Your task to perform on an android device: Go to accessibility settings Image 0: 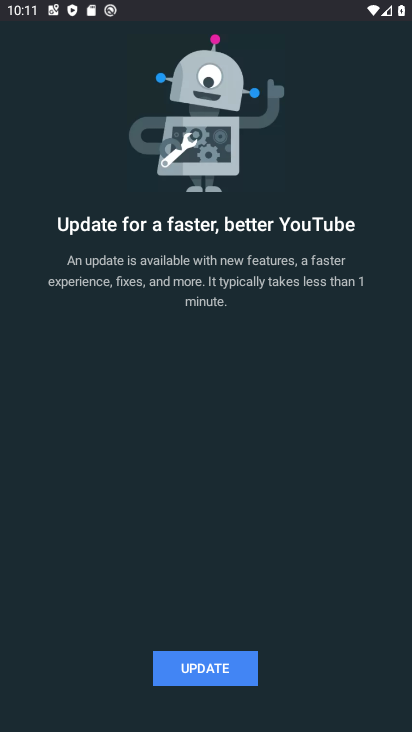
Step 0: press home button
Your task to perform on an android device: Go to accessibility settings Image 1: 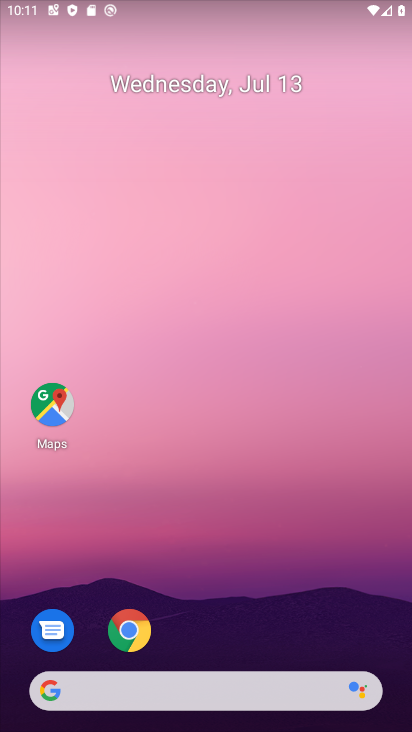
Step 1: drag from (343, 635) to (337, 182)
Your task to perform on an android device: Go to accessibility settings Image 2: 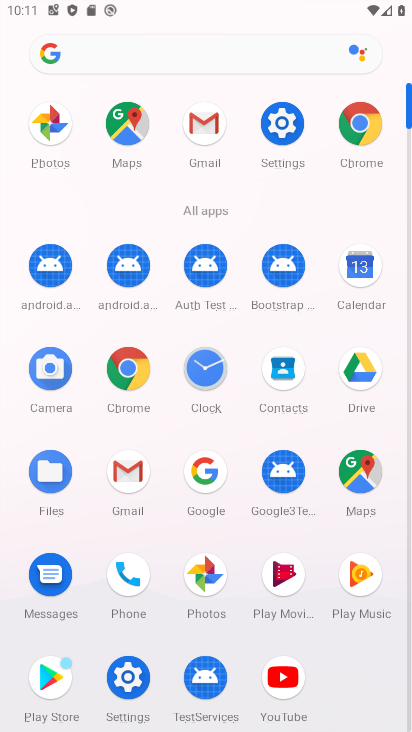
Step 2: click (283, 124)
Your task to perform on an android device: Go to accessibility settings Image 3: 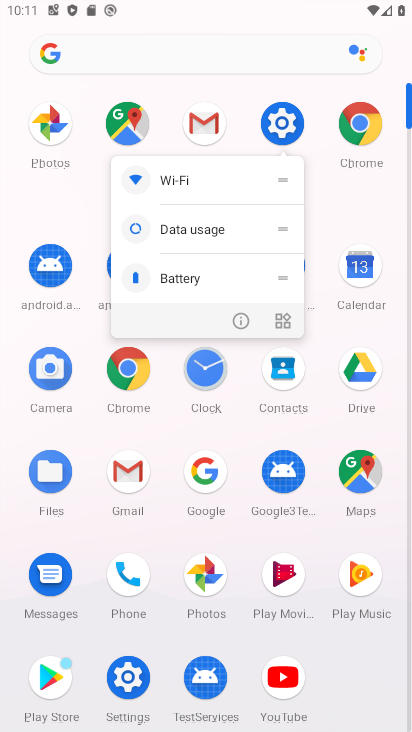
Step 3: click (277, 128)
Your task to perform on an android device: Go to accessibility settings Image 4: 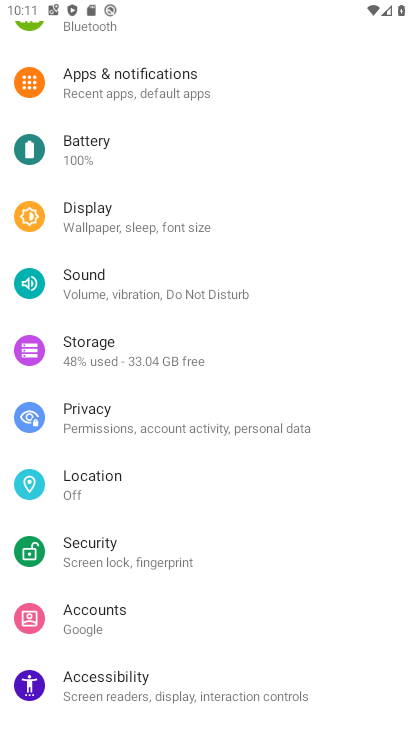
Step 4: drag from (170, 638) to (261, 326)
Your task to perform on an android device: Go to accessibility settings Image 5: 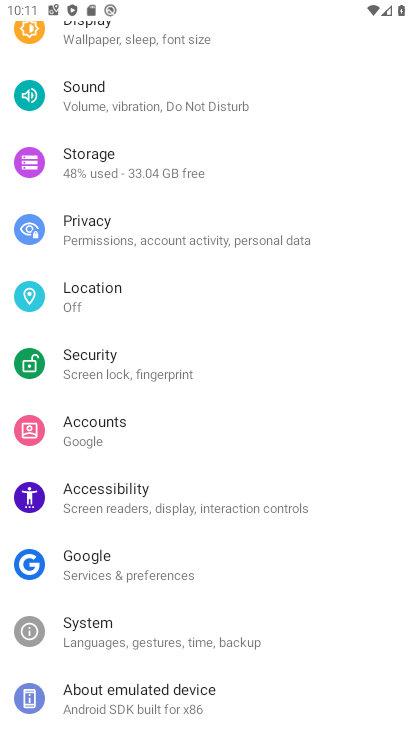
Step 5: click (120, 492)
Your task to perform on an android device: Go to accessibility settings Image 6: 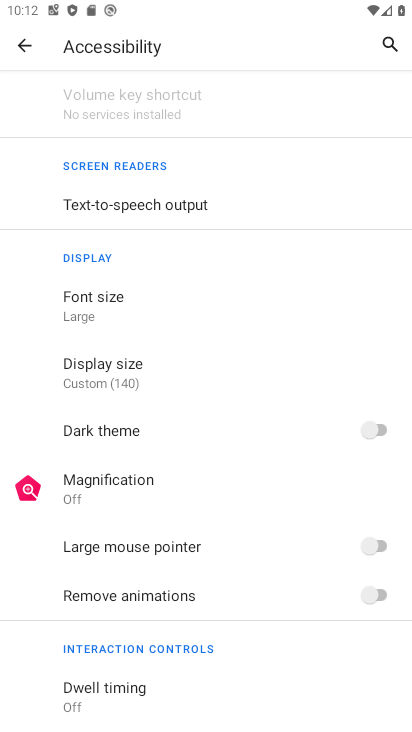
Step 6: task complete